Your task to perform on an android device: Show me the alarms in the clock app Image 0: 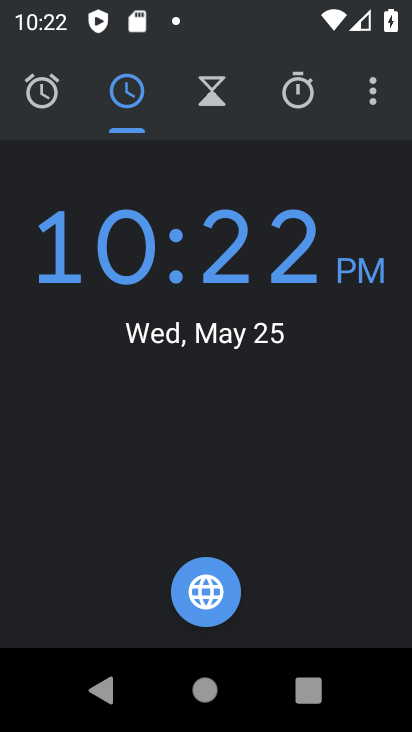
Step 0: click (61, 101)
Your task to perform on an android device: Show me the alarms in the clock app Image 1: 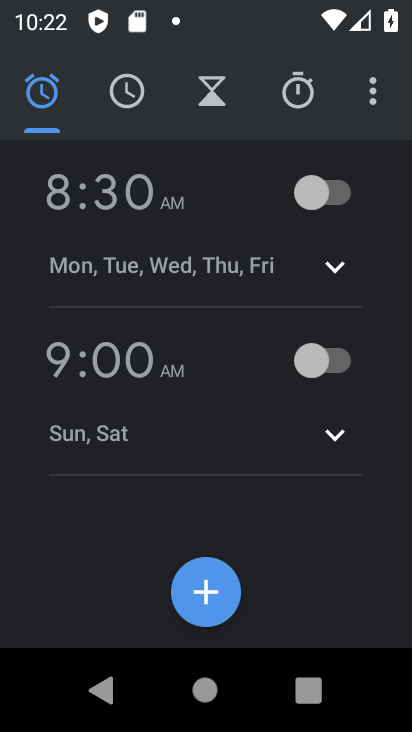
Step 1: task complete